Your task to perform on an android device: Do I have any events this weekend? Image 0: 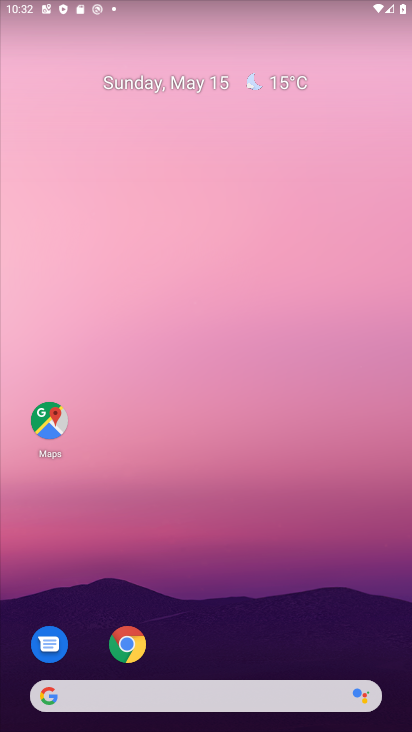
Step 0: drag from (224, 681) to (241, 53)
Your task to perform on an android device: Do I have any events this weekend? Image 1: 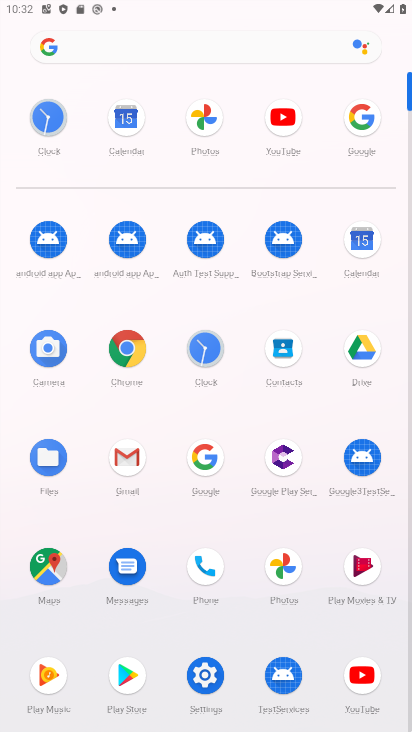
Step 1: click (361, 242)
Your task to perform on an android device: Do I have any events this weekend? Image 2: 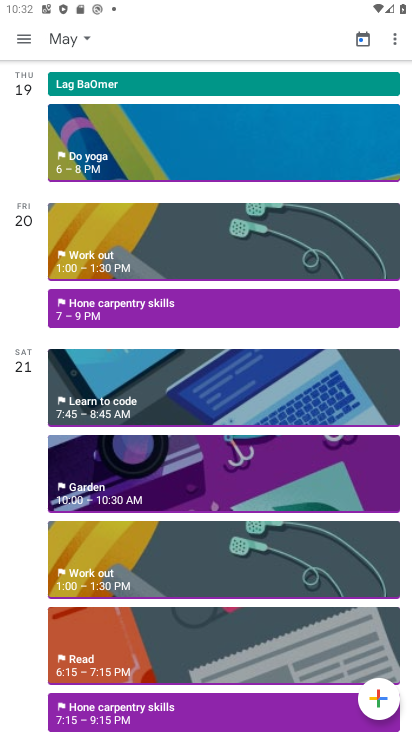
Step 2: click (68, 47)
Your task to perform on an android device: Do I have any events this weekend? Image 3: 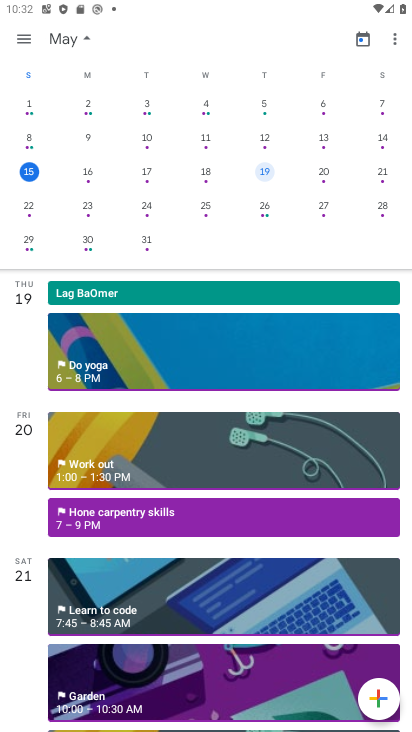
Step 3: click (272, 173)
Your task to perform on an android device: Do I have any events this weekend? Image 4: 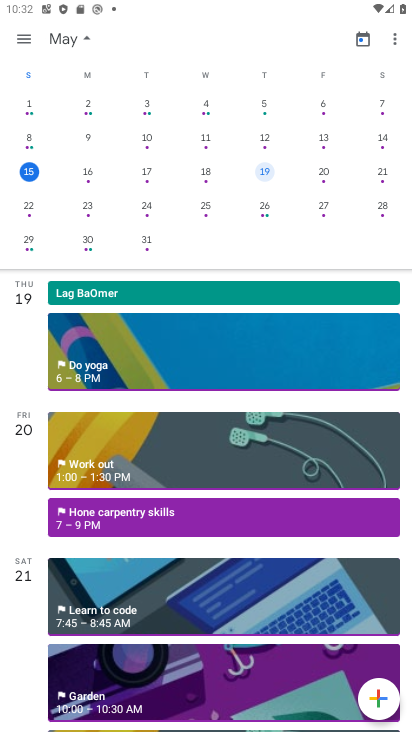
Step 4: drag from (151, 682) to (145, 423)
Your task to perform on an android device: Do I have any events this weekend? Image 5: 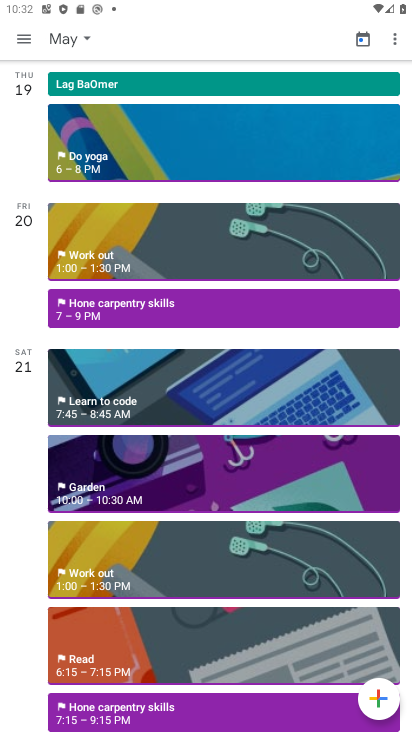
Step 5: click (114, 128)
Your task to perform on an android device: Do I have any events this weekend? Image 6: 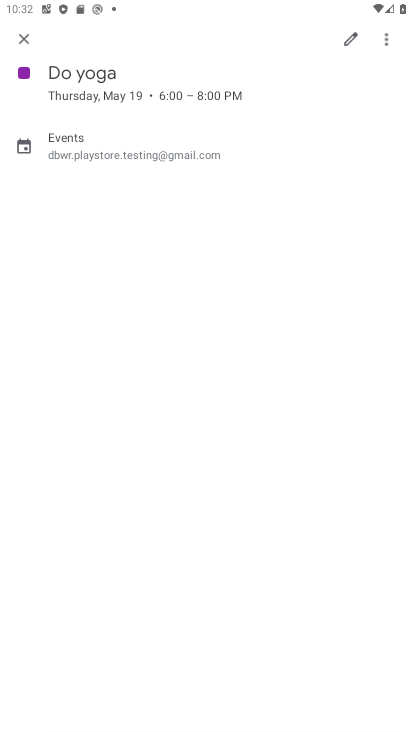
Step 6: click (28, 31)
Your task to perform on an android device: Do I have any events this weekend? Image 7: 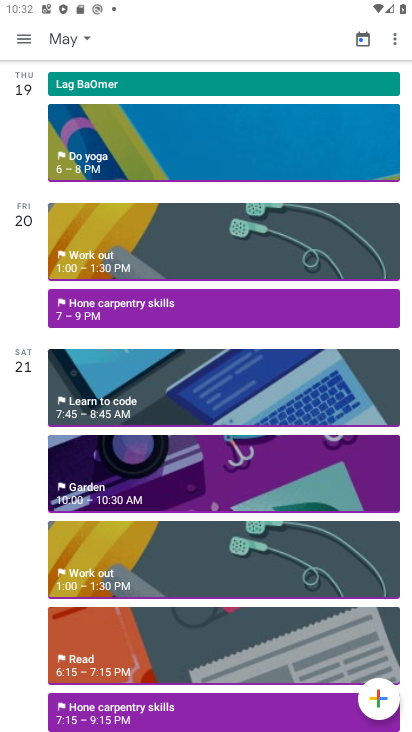
Step 7: click (174, 394)
Your task to perform on an android device: Do I have any events this weekend? Image 8: 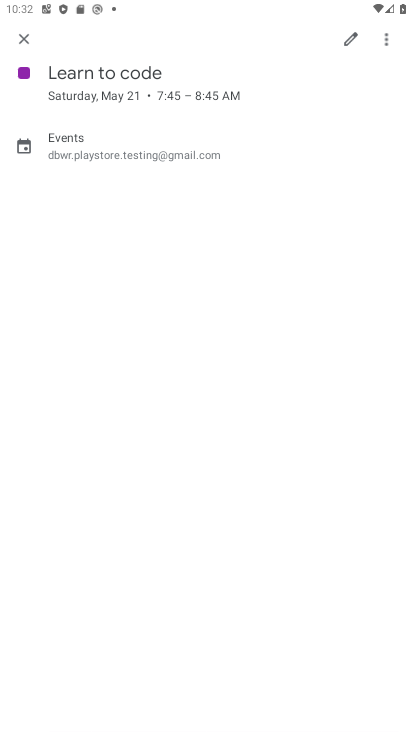
Step 8: task complete